Your task to perform on an android device: Go to calendar. Show me events next week Image 0: 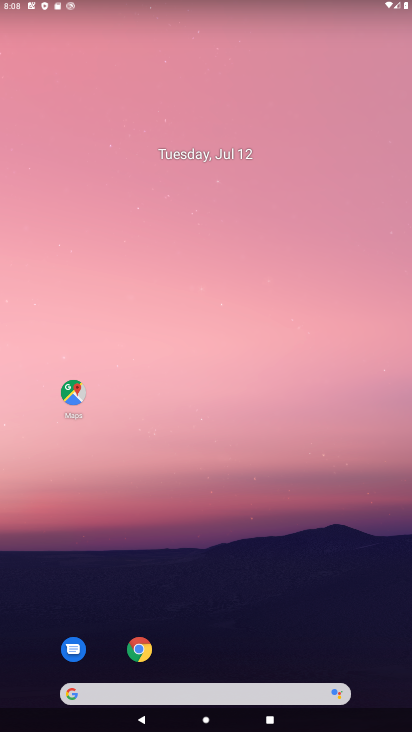
Step 0: drag from (300, 609) to (313, 161)
Your task to perform on an android device: Go to calendar. Show me events next week Image 1: 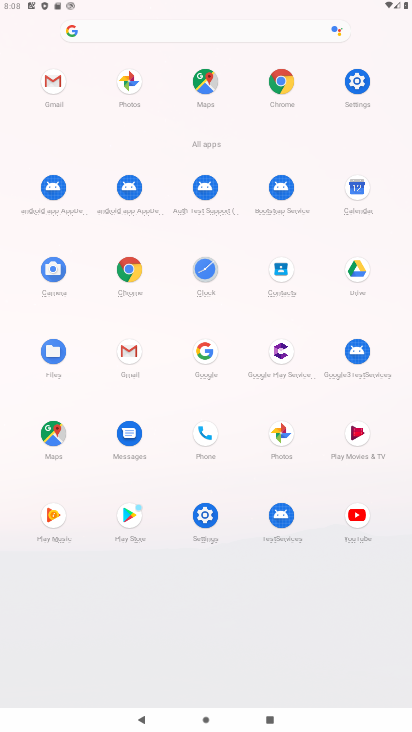
Step 1: click (357, 189)
Your task to perform on an android device: Go to calendar. Show me events next week Image 2: 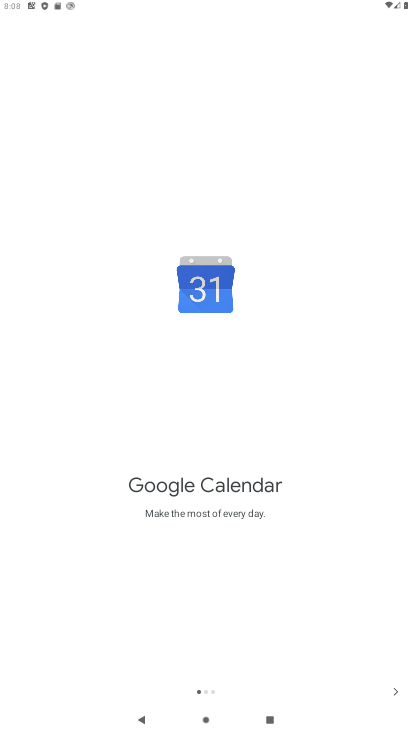
Step 2: click (396, 694)
Your task to perform on an android device: Go to calendar. Show me events next week Image 3: 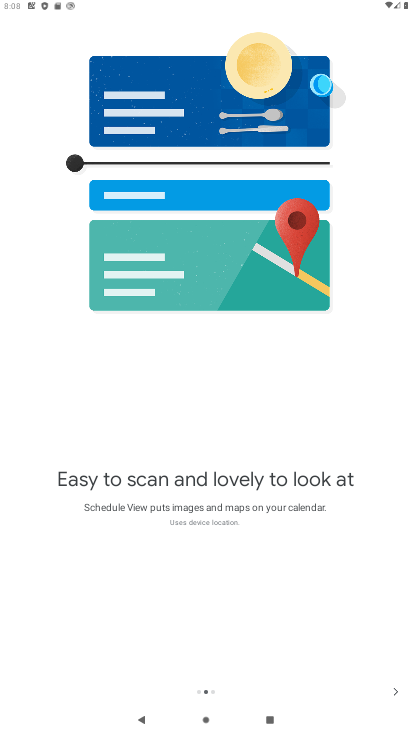
Step 3: click (396, 694)
Your task to perform on an android device: Go to calendar. Show me events next week Image 4: 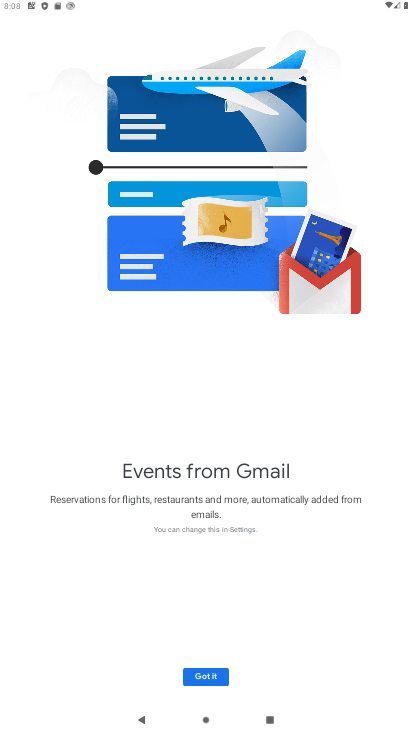
Step 4: click (396, 694)
Your task to perform on an android device: Go to calendar. Show me events next week Image 5: 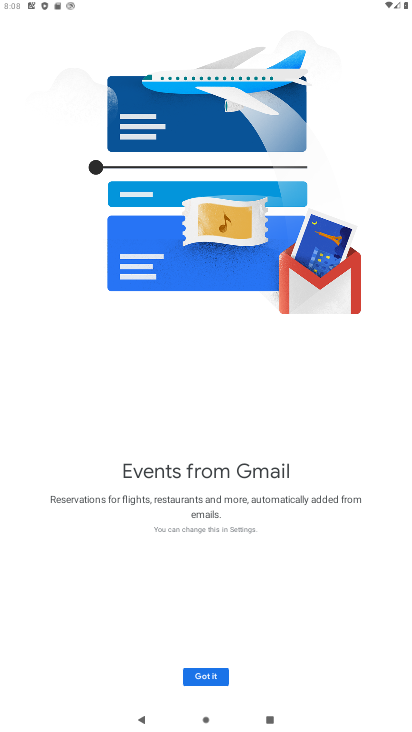
Step 5: click (217, 675)
Your task to perform on an android device: Go to calendar. Show me events next week Image 6: 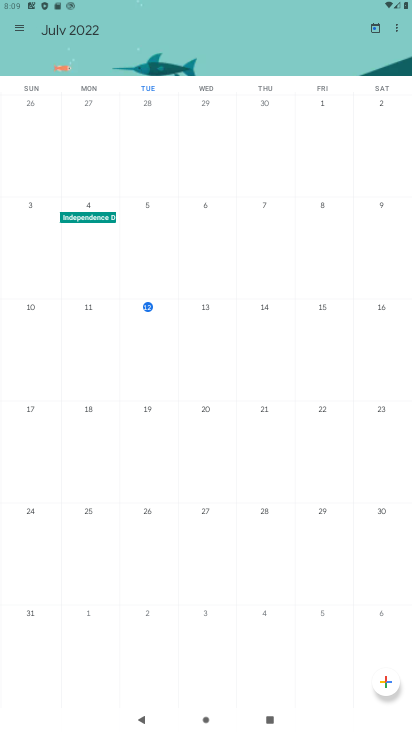
Step 6: click (209, 405)
Your task to perform on an android device: Go to calendar. Show me events next week Image 7: 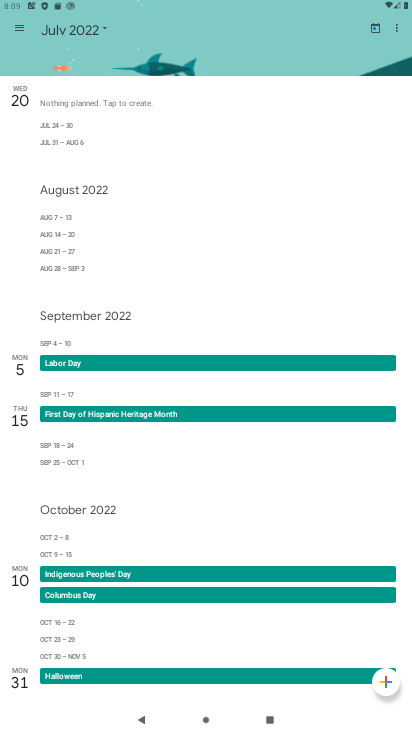
Step 7: task complete